Your task to perform on an android device: Check the weather Image 0: 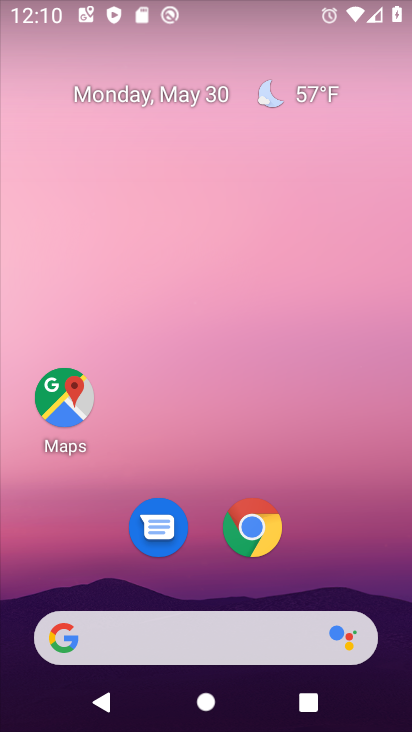
Step 0: click (325, 92)
Your task to perform on an android device: Check the weather Image 1: 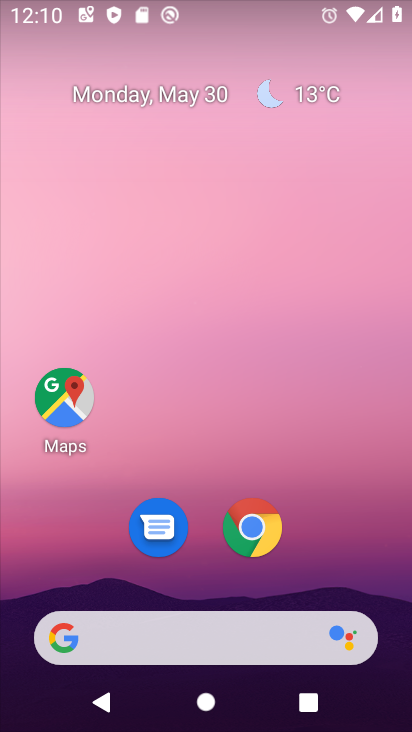
Step 1: click (325, 92)
Your task to perform on an android device: Check the weather Image 2: 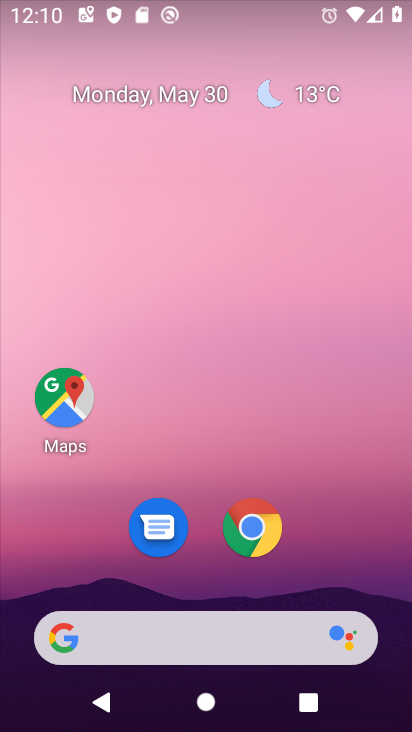
Step 2: click (325, 92)
Your task to perform on an android device: Check the weather Image 3: 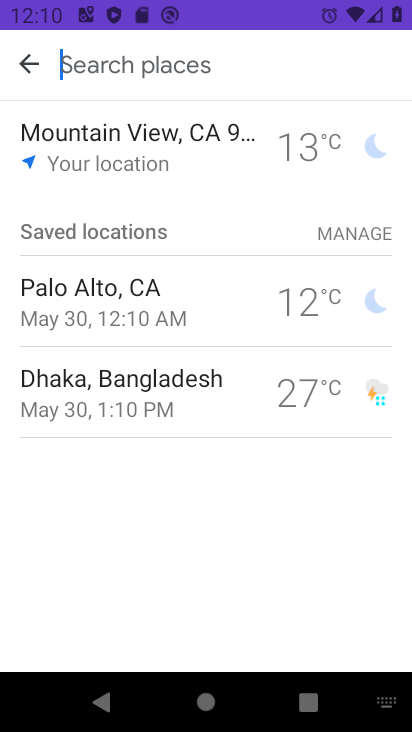
Step 3: task complete